Your task to perform on an android device: change your default location settings in chrome Image 0: 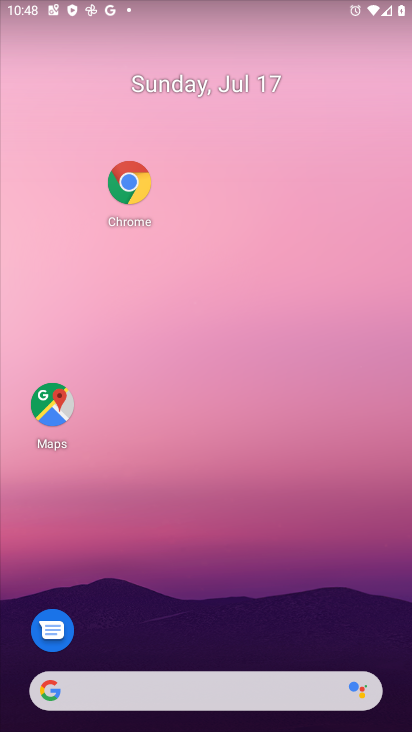
Step 0: click (124, 188)
Your task to perform on an android device: change your default location settings in chrome Image 1: 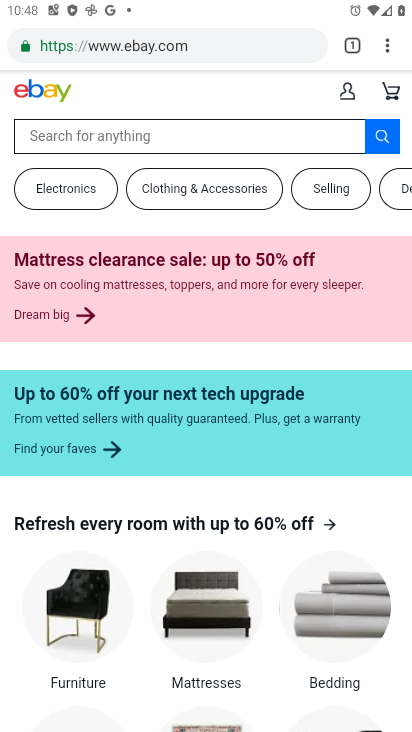
Step 1: click (392, 47)
Your task to perform on an android device: change your default location settings in chrome Image 2: 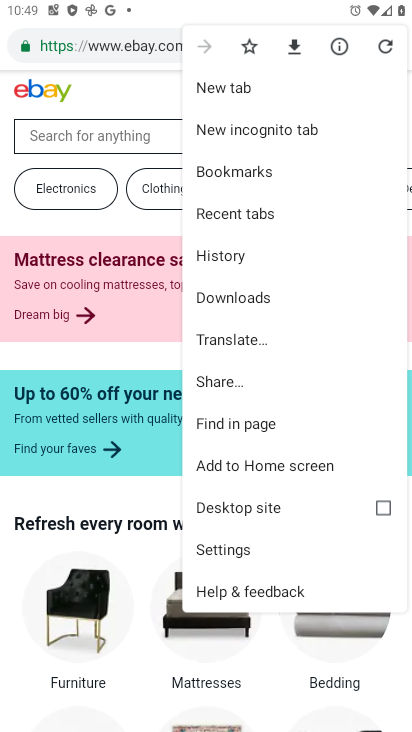
Step 2: click (247, 543)
Your task to perform on an android device: change your default location settings in chrome Image 3: 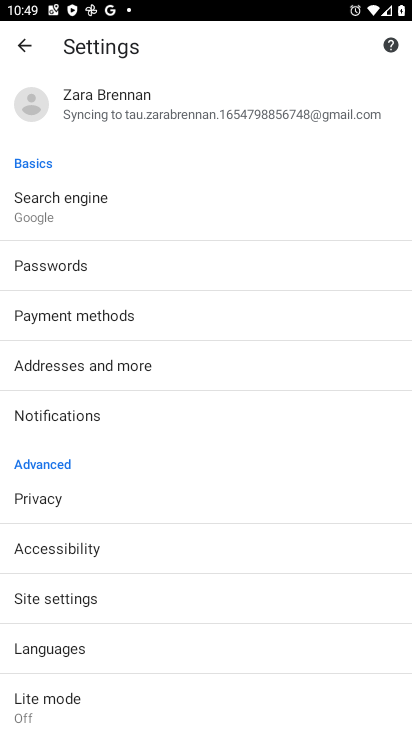
Step 3: click (74, 600)
Your task to perform on an android device: change your default location settings in chrome Image 4: 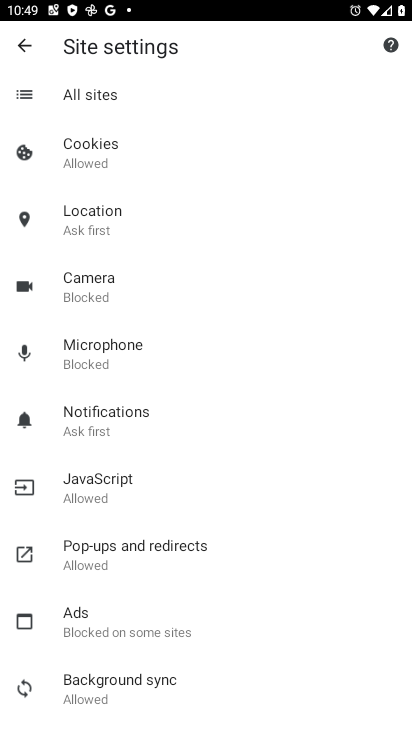
Step 4: click (91, 215)
Your task to perform on an android device: change your default location settings in chrome Image 5: 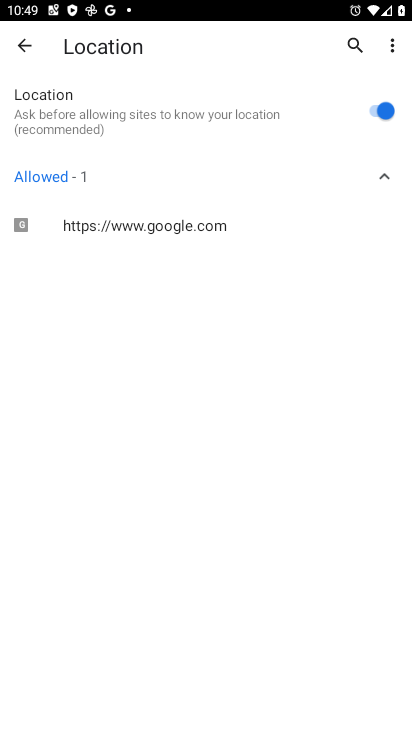
Step 5: click (383, 108)
Your task to perform on an android device: change your default location settings in chrome Image 6: 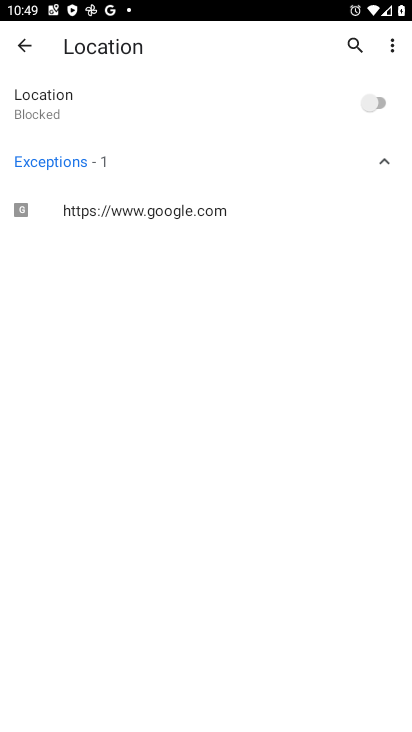
Step 6: task complete